Your task to perform on an android device: see tabs open on other devices in the chrome app Image 0: 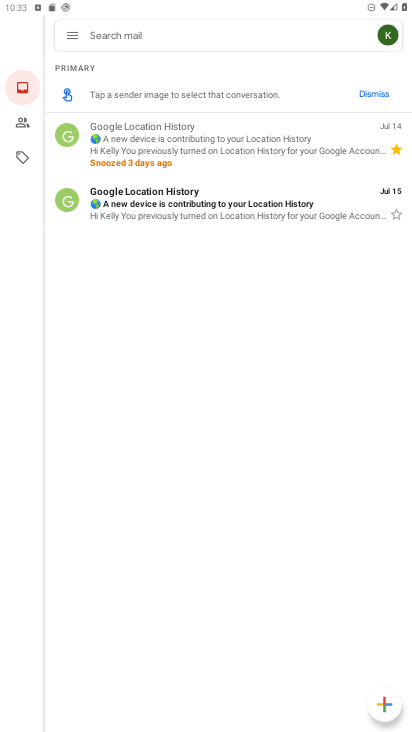
Step 0: press home button
Your task to perform on an android device: see tabs open on other devices in the chrome app Image 1: 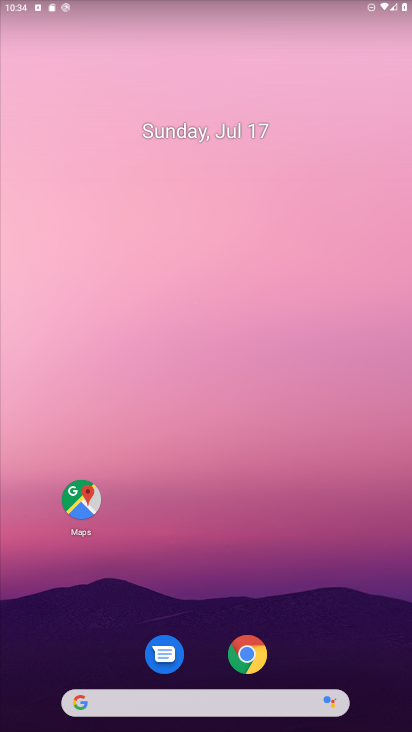
Step 1: drag from (202, 617) to (185, 142)
Your task to perform on an android device: see tabs open on other devices in the chrome app Image 2: 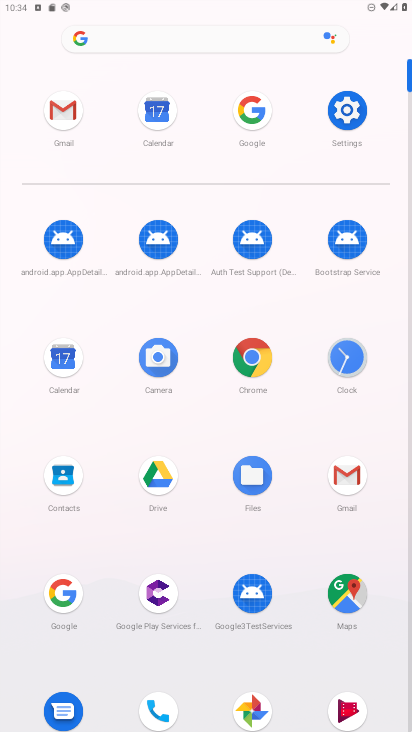
Step 2: click (248, 381)
Your task to perform on an android device: see tabs open on other devices in the chrome app Image 3: 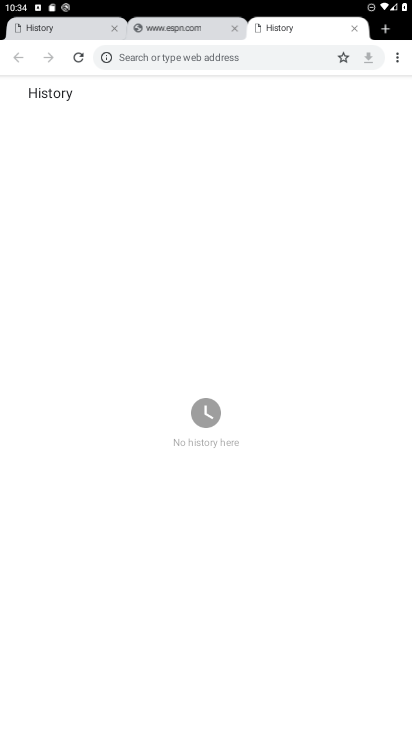
Step 3: click (395, 55)
Your task to perform on an android device: see tabs open on other devices in the chrome app Image 4: 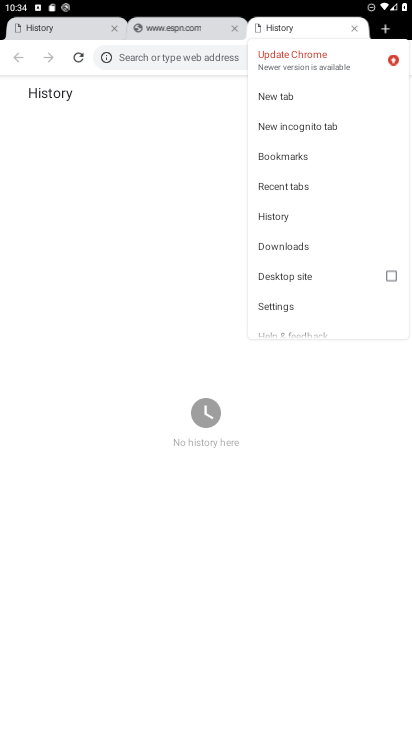
Step 4: click (297, 188)
Your task to perform on an android device: see tabs open on other devices in the chrome app Image 5: 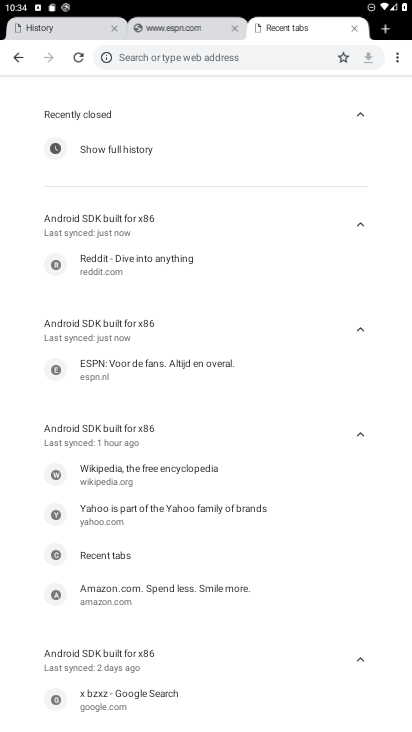
Step 5: task complete